Your task to perform on an android device: Open Youtube and go to "Your channel" Image 0: 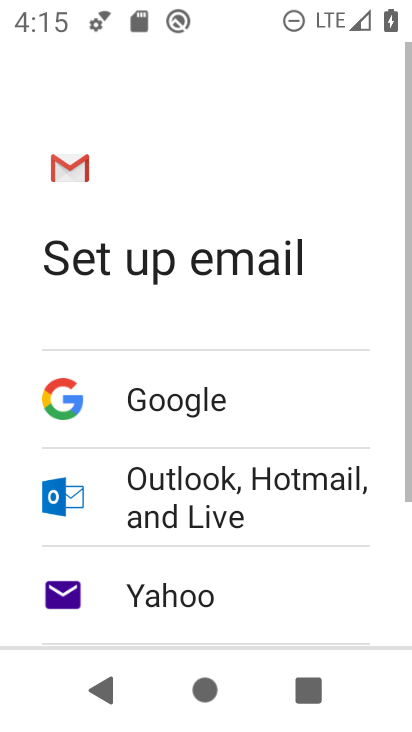
Step 0: press home button
Your task to perform on an android device: Open Youtube and go to "Your channel" Image 1: 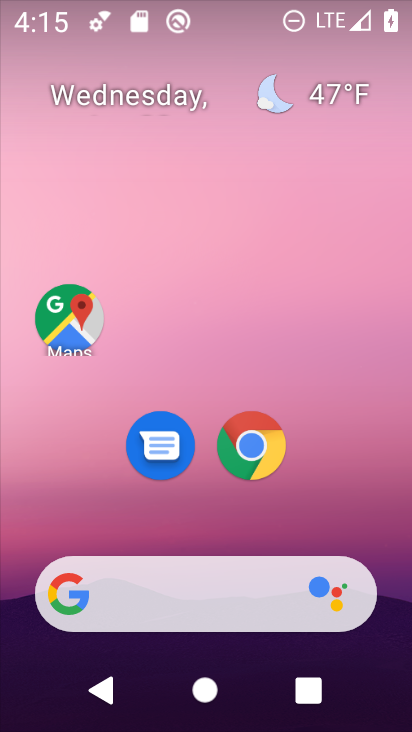
Step 1: drag from (197, 524) to (297, 42)
Your task to perform on an android device: Open Youtube and go to "Your channel" Image 2: 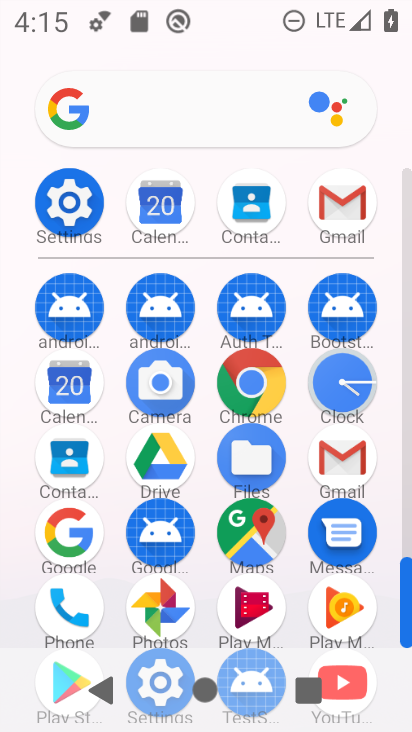
Step 2: drag from (296, 514) to (319, 250)
Your task to perform on an android device: Open Youtube and go to "Your channel" Image 3: 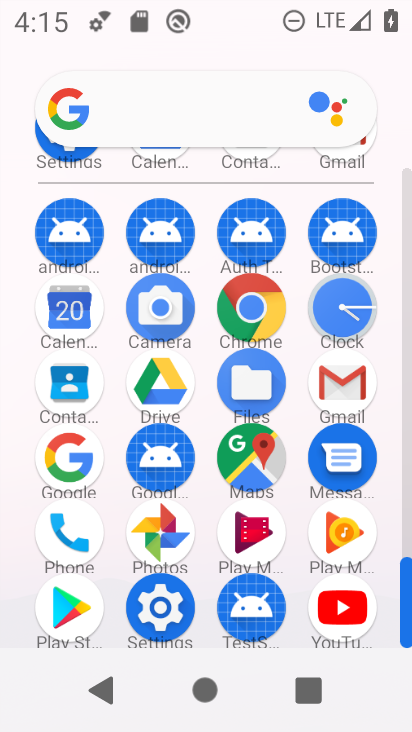
Step 3: click (340, 602)
Your task to perform on an android device: Open Youtube and go to "Your channel" Image 4: 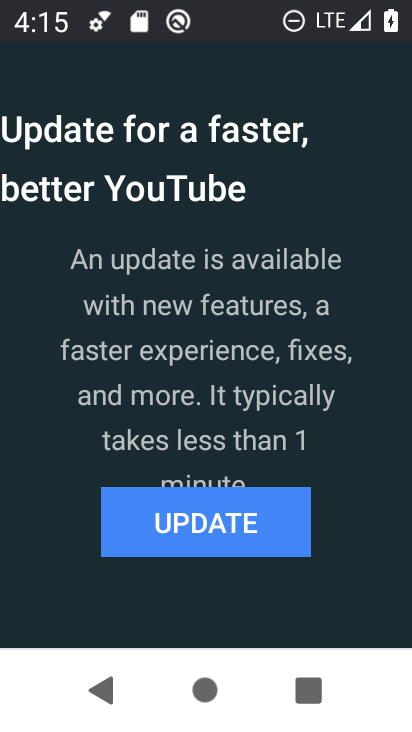
Step 4: click (214, 516)
Your task to perform on an android device: Open Youtube and go to "Your channel" Image 5: 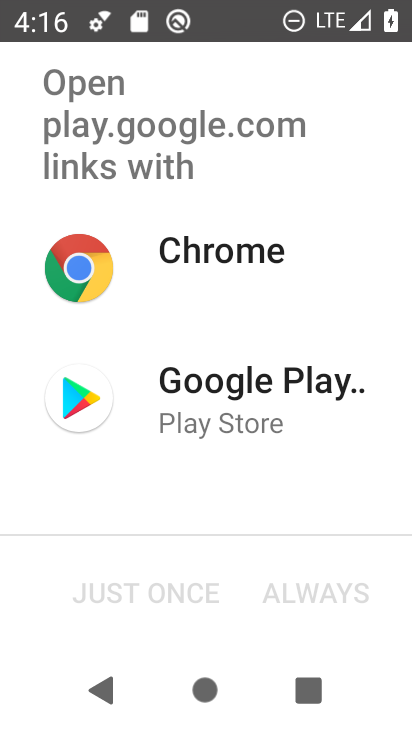
Step 5: click (219, 412)
Your task to perform on an android device: Open Youtube and go to "Your channel" Image 6: 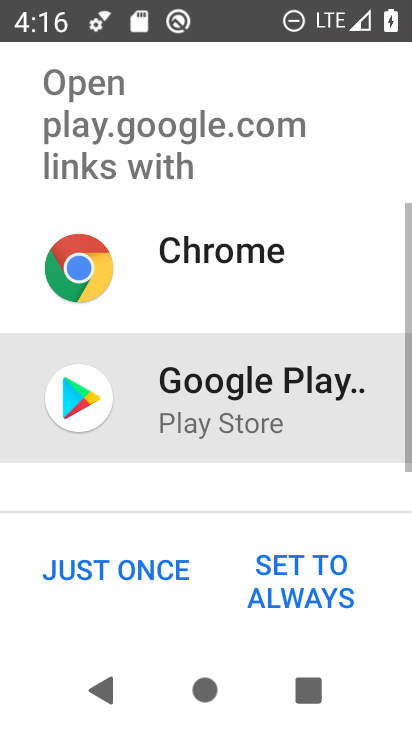
Step 6: click (132, 571)
Your task to perform on an android device: Open Youtube and go to "Your channel" Image 7: 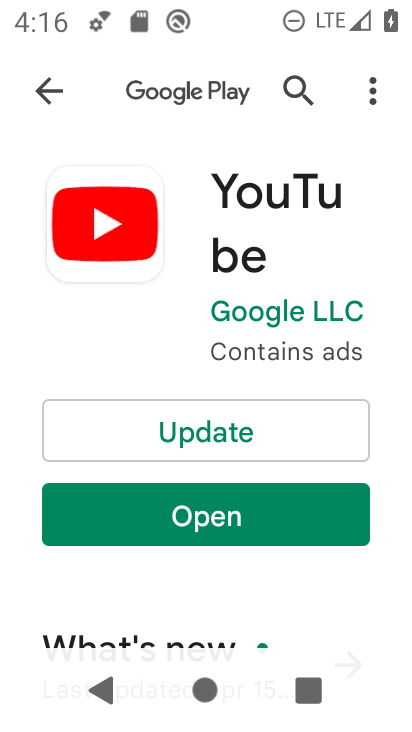
Step 7: click (205, 445)
Your task to perform on an android device: Open Youtube and go to "Your channel" Image 8: 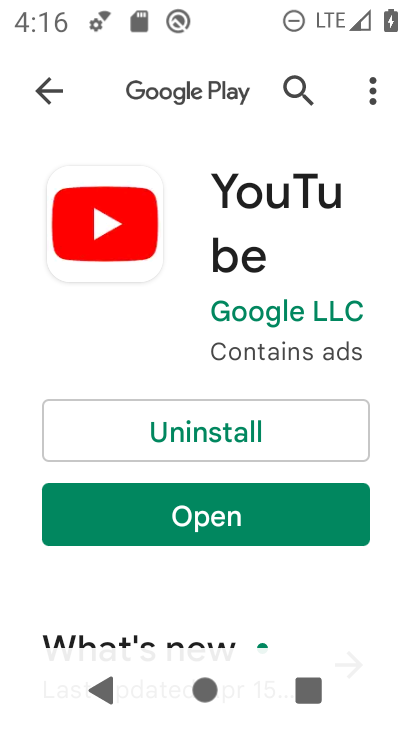
Step 8: click (187, 501)
Your task to perform on an android device: Open Youtube and go to "Your channel" Image 9: 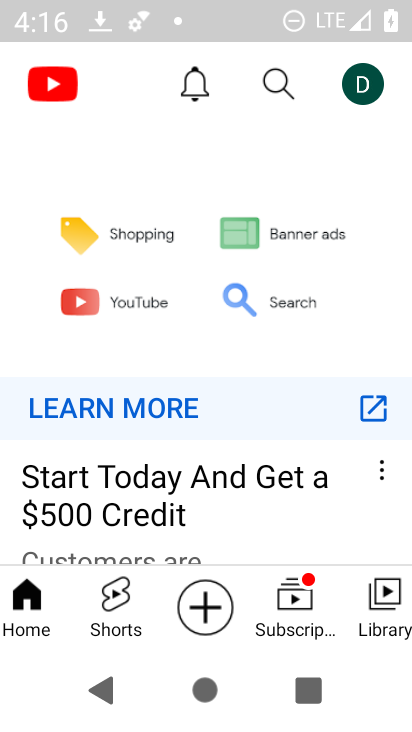
Step 9: click (360, 83)
Your task to perform on an android device: Open Youtube and go to "Your channel" Image 10: 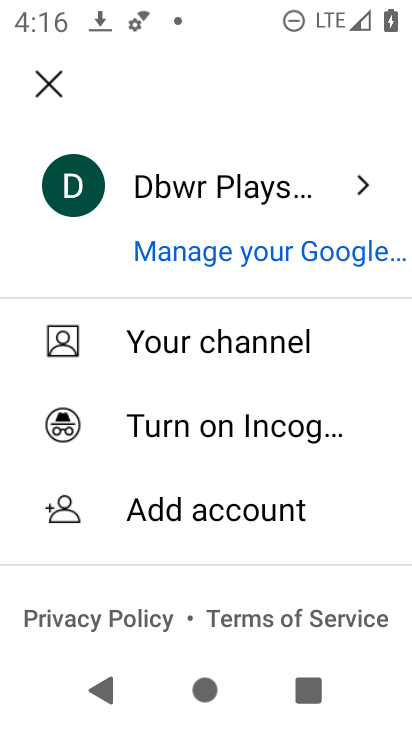
Step 10: click (247, 337)
Your task to perform on an android device: Open Youtube and go to "Your channel" Image 11: 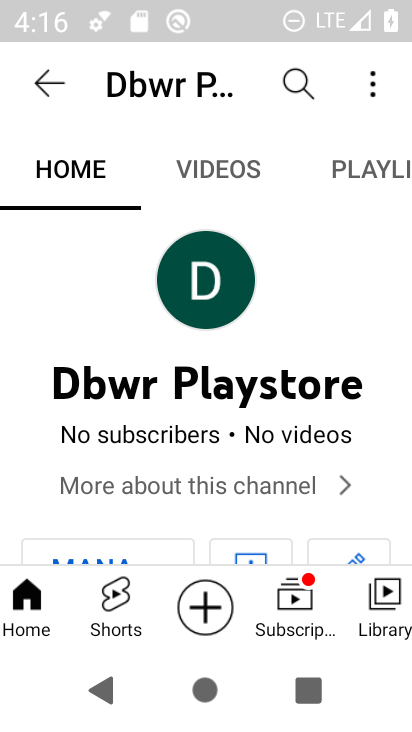
Step 11: task complete